Your task to perform on an android device: toggle improve location accuracy Image 0: 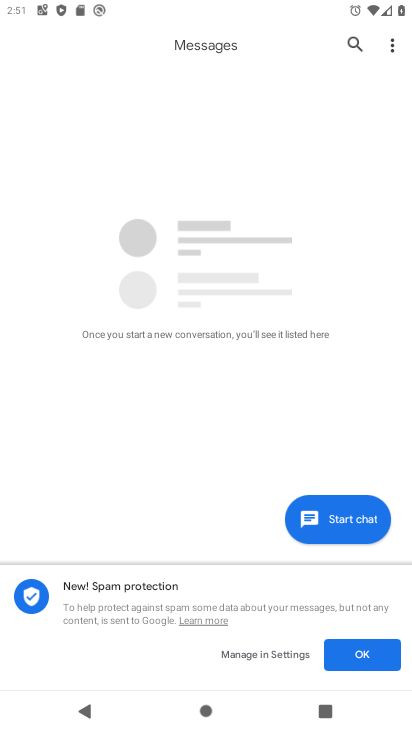
Step 0: press home button
Your task to perform on an android device: toggle improve location accuracy Image 1: 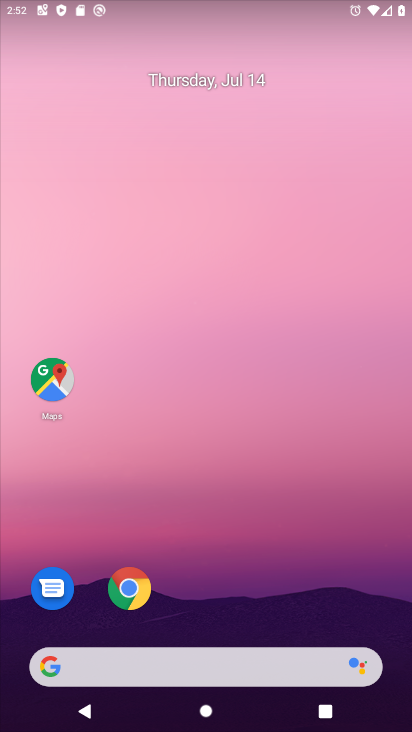
Step 1: drag from (267, 580) to (280, 175)
Your task to perform on an android device: toggle improve location accuracy Image 2: 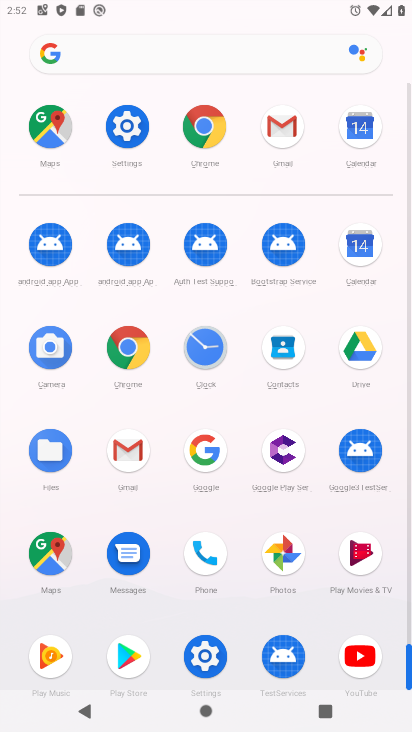
Step 2: click (117, 123)
Your task to perform on an android device: toggle improve location accuracy Image 3: 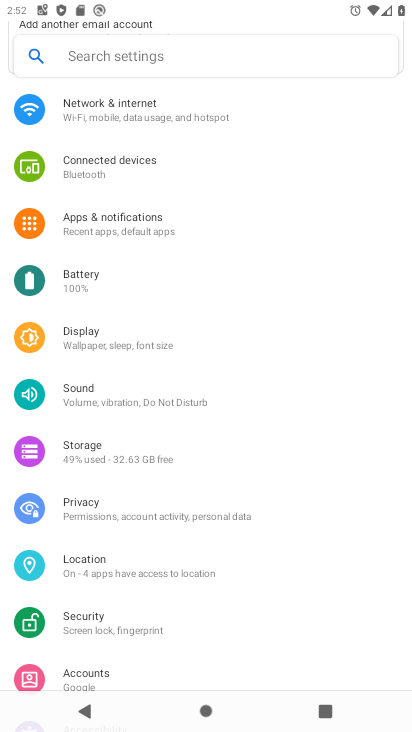
Step 3: click (145, 560)
Your task to perform on an android device: toggle improve location accuracy Image 4: 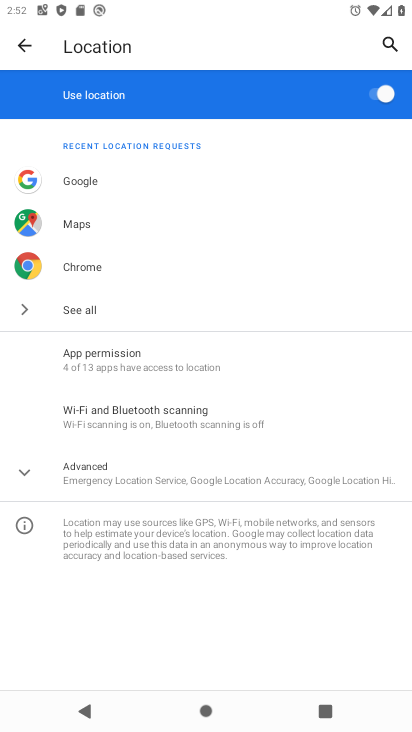
Step 4: click (126, 461)
Your task to perform on an android device: toggle improve location accuracy Image 5: 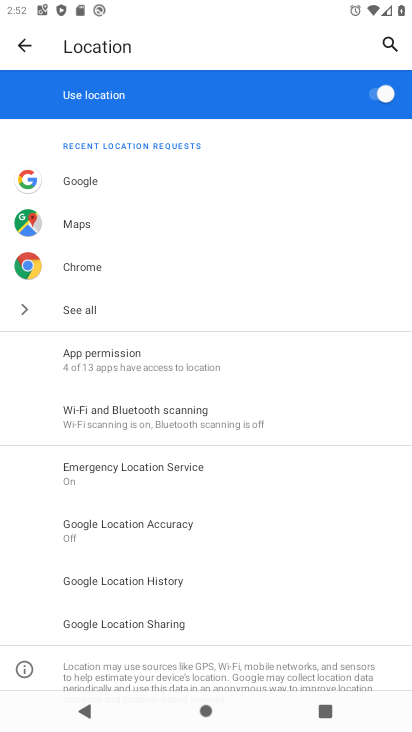
Step 5: click (164, 528)
Your task to perform on an android device: toggle improve location accuracy Image 6: 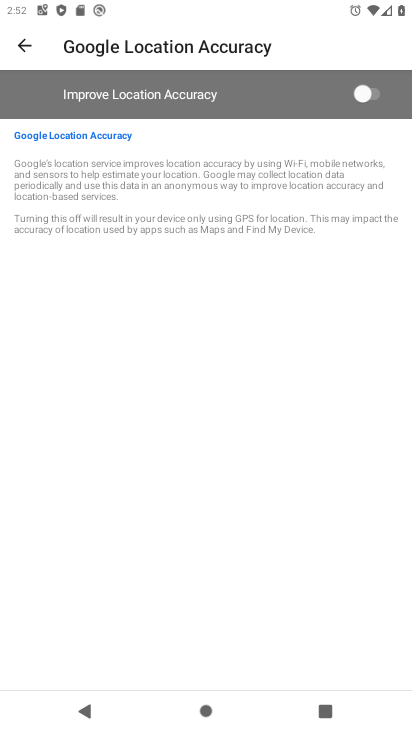
Step 6: click (369, 91)
Your task to perform on an android device: toggle improve location accuracy Image 7: 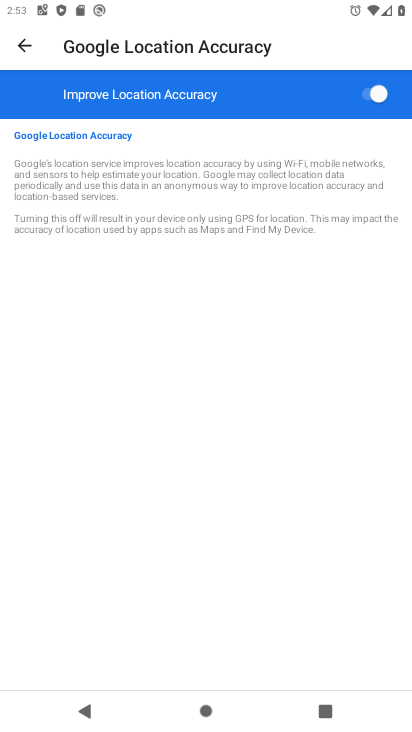
Step 7: task complete